Your task to perform on an android device: Open wifi settings Image 0: 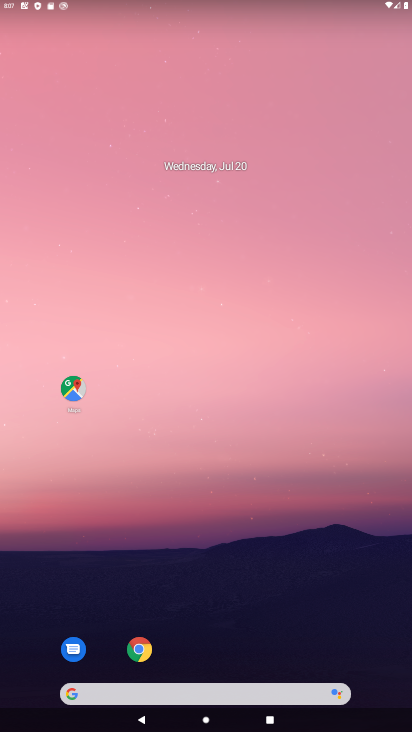
Step 0: drag from (288, 654) to (229, 326)
Your task to perform on an android device: Open wifi settings Image 1: 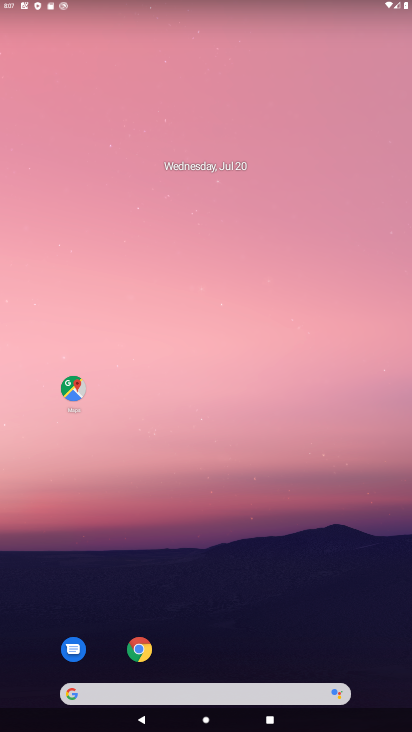
Step 1: drag from (225, 677) to (254, 16)
Your task to perform on an android device: Open wifi settings Image 2: 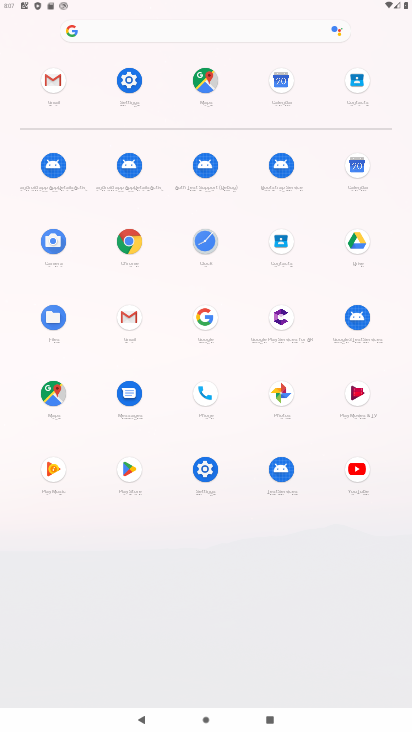
Step 2: click (139, 91)
Your task to perform on an android device: Open wifi settings Image 3: 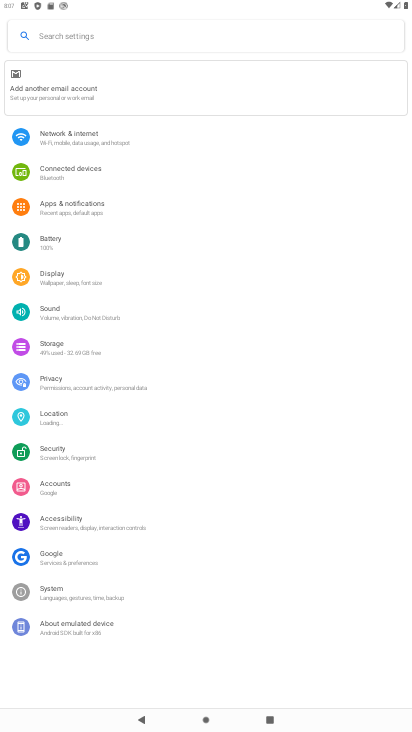
Step 3: click (72, 125)
Your task to perform on an android device: Open wifi settings Image 4: 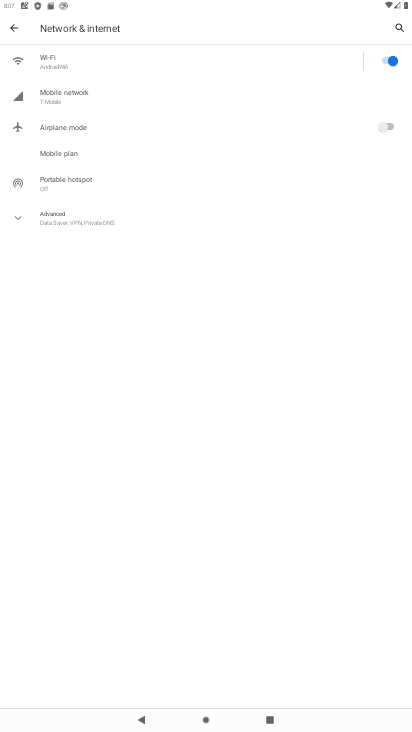
Step 4: click (62, 70)
Your task to perform on an android device: Open wifi settings Image 5: 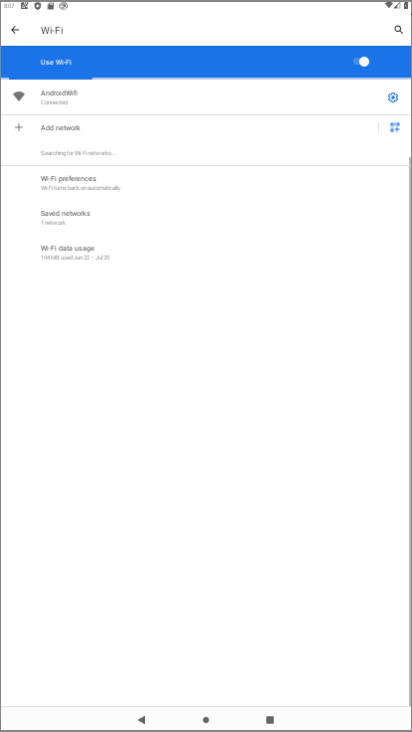
Step 5: task complete